Your task to perform on an android device: Go to display settings Image 0: 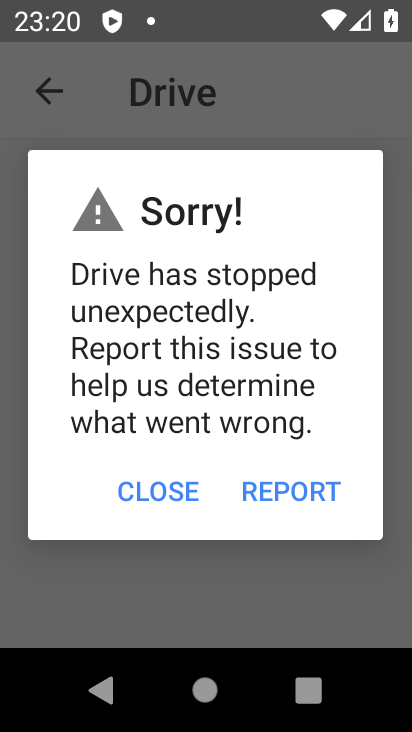
Step 0: press home button
Your task to perform on an android device: Go to display settings Image 1: 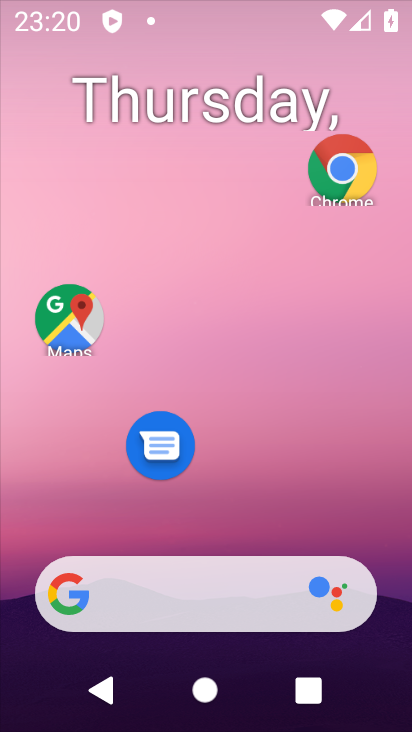
Step 1: drag from (230, 580) to (289, 118)
Your task to perform on an android device: Go to display settings Image 2: 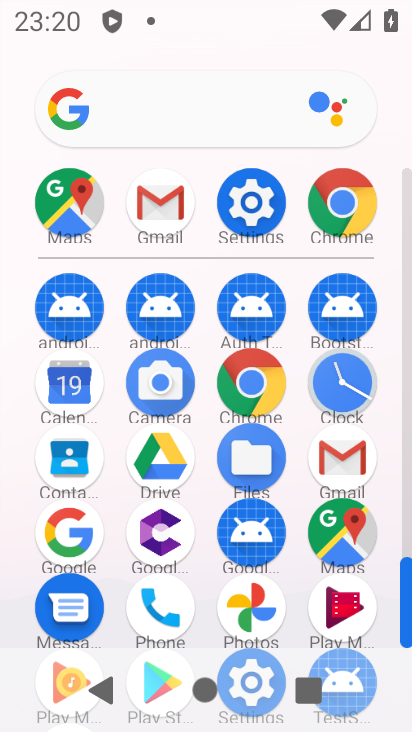
Step 2: click (250, 206)
Your task to perform on an android device: Go to display settings Image 3: 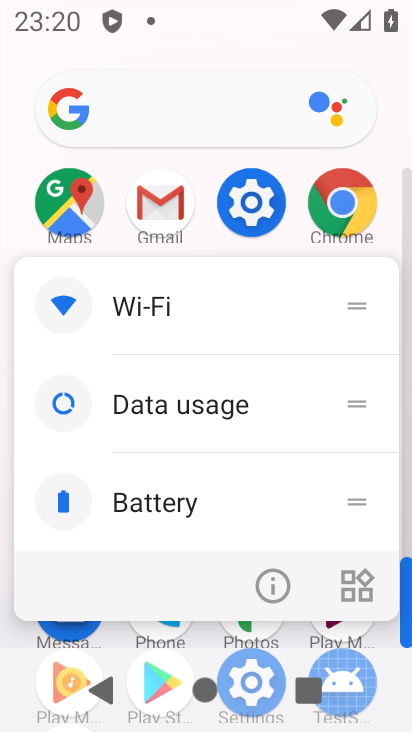
Step 3: click (275, 597)
Your task to perform on an android device: Go to display settings Image 4: 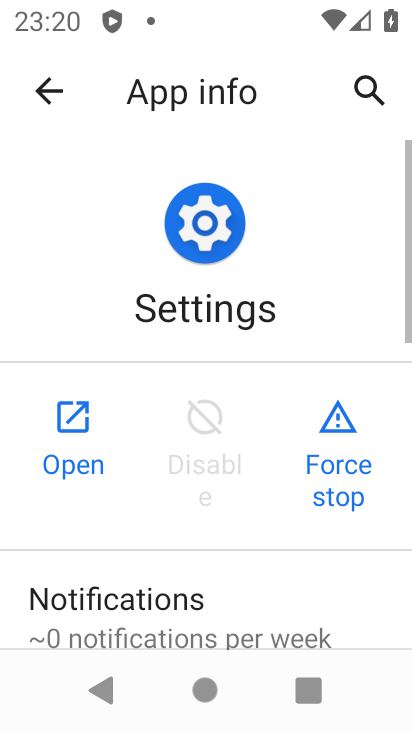
Step 4: click (79, 436)
Your task to perform on an android device: Go to display settings Image 5: 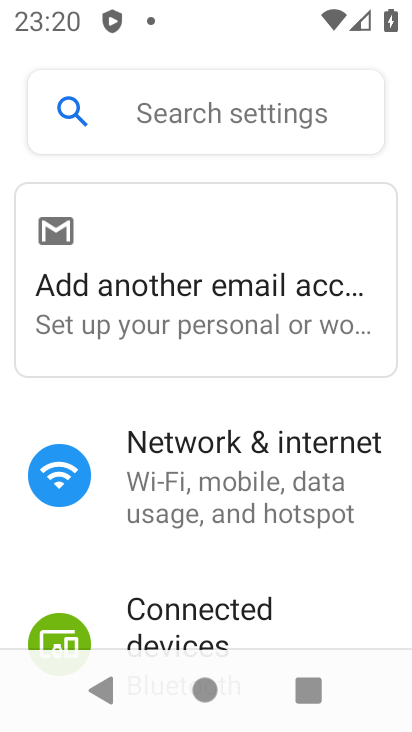
Step 5: drag from (239, 525) to (341, 209)
Your task to perform on an android device: Go to display settings Image 6: 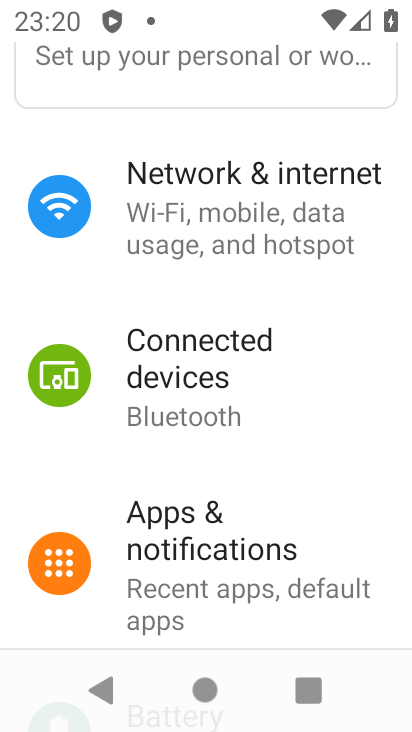
Step 6: drag from (229, 596) to (340, 179)
Your task to perform on an android device: Go to display settings Image 7: 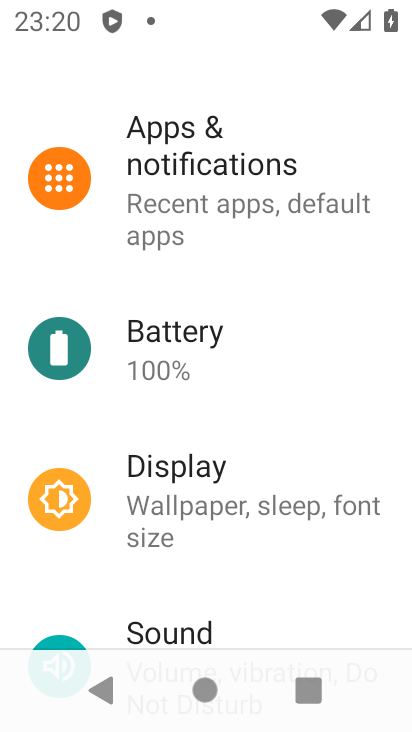
Step 7: click (193, 508)
Your task to perform on an android device: Go to display settings Image 8: 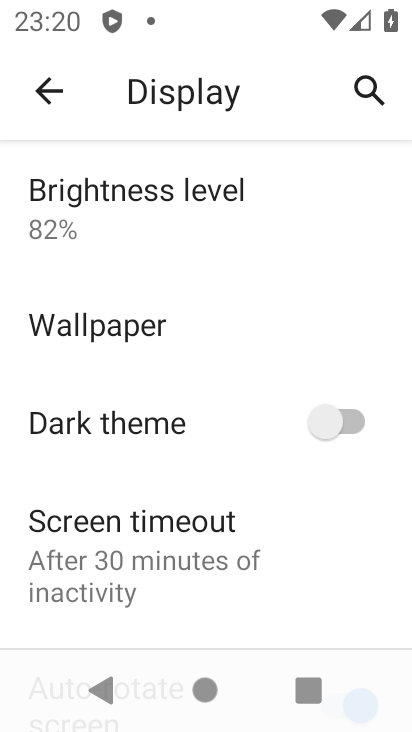
Step 8: task complete